Your task to perform on an android device: Open Google Chrome and open the bookmarks view Image 0: 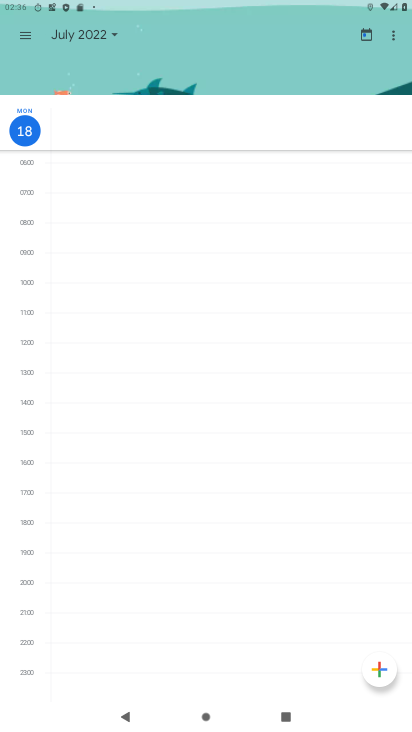
Step 0: press home button
Your task to perform on an android device: Open Google Chrome and open the bookmarks view Image 1: 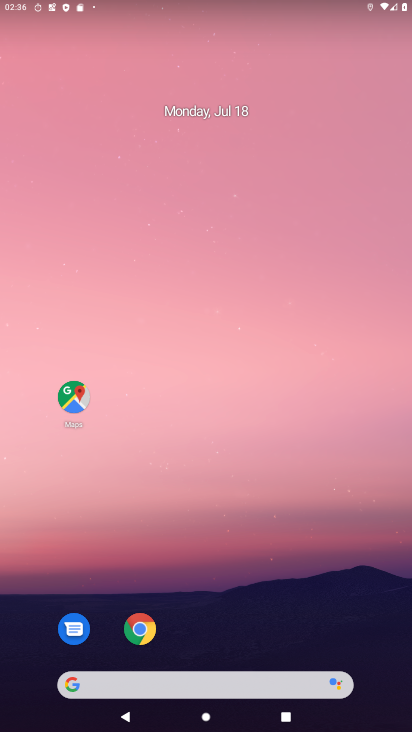
Step 1: click (141, 625)
Your task to perform on an android device: Open Google Chrome and open the bookmarks view Image 2: 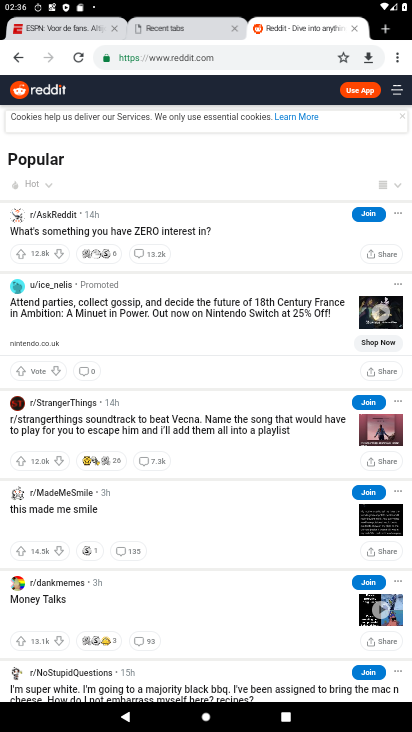
Step 2: click (399, 59)
Your task to perform on an android device: Open Google Chrome and open the bookmarks view Image 3: 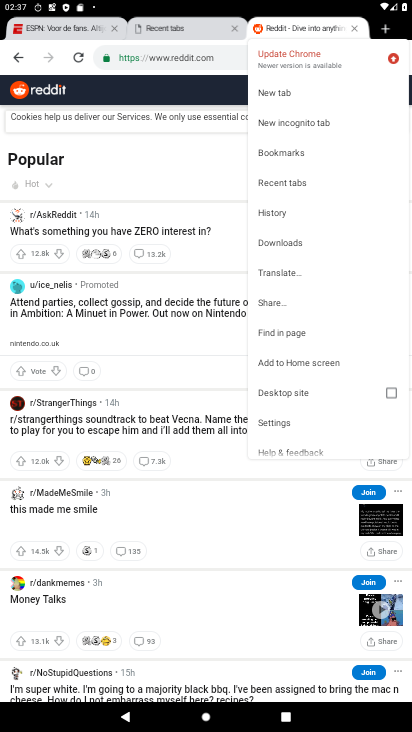
Step 3: click (286, 153)
Your task to perform on an android device: Open Google Chrome and open the bookmarks view Image 4: 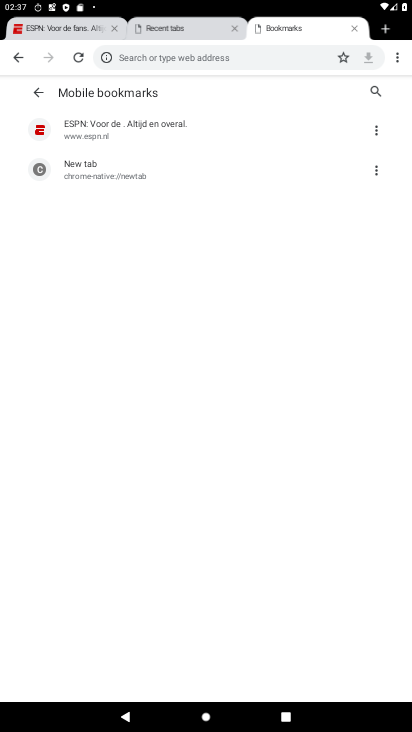
Step 4: task complete